Your task to perform on an android device: open chrome and create a bookmark for the current page Image 0: 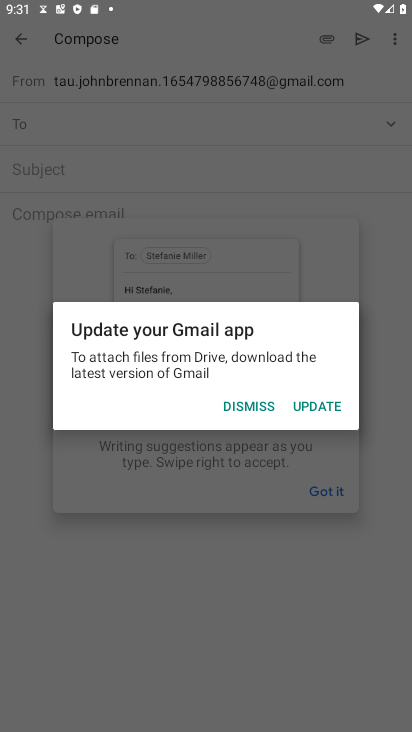
Step 0: press home button
Your task to perform on an android device: open chrome and create a bookmark for the current page Image 1: 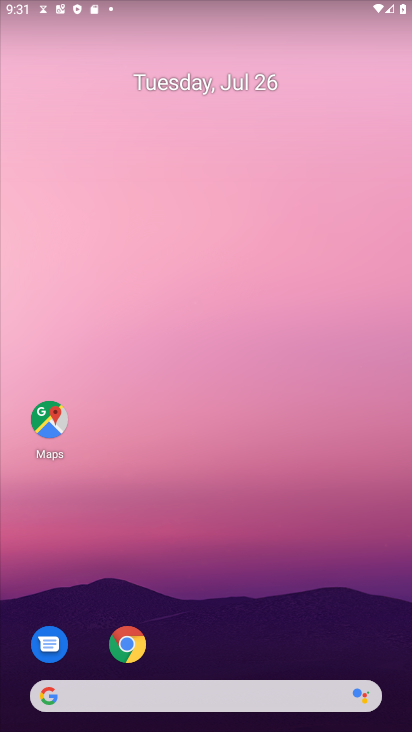
Step 1: click (107, 643)
Your task to perform on an android device: open chrome and create a bookmark for the current page Image 2: 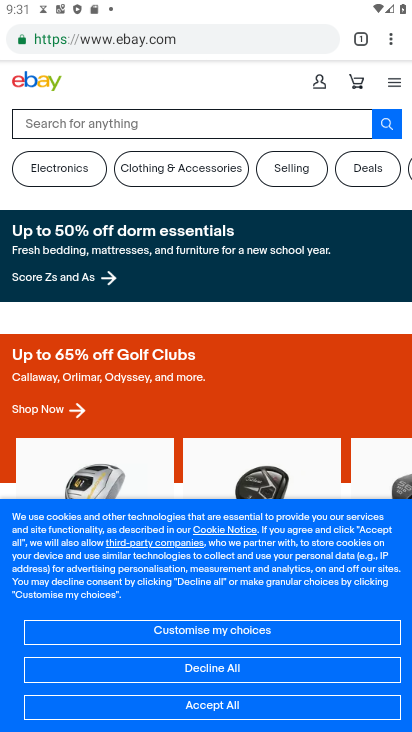
Step 2: click (389, 39)
Your task to perform on an android device: open chrome and create a bookmark for the current page Image 3: 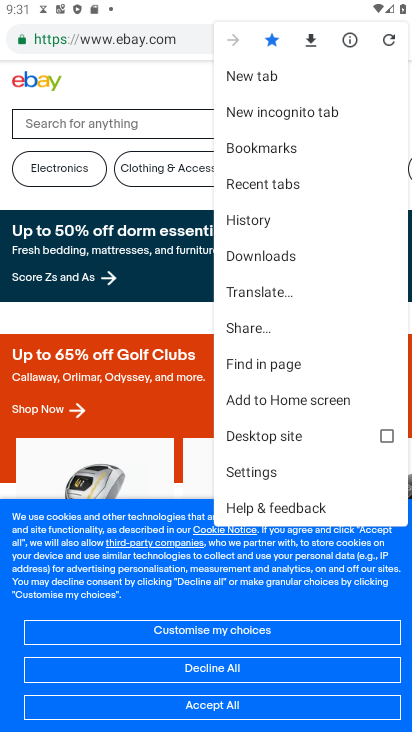
Step 3: task complete